Your task to perform on an android device: open app "Messages" (install if not already installed) Image 0: 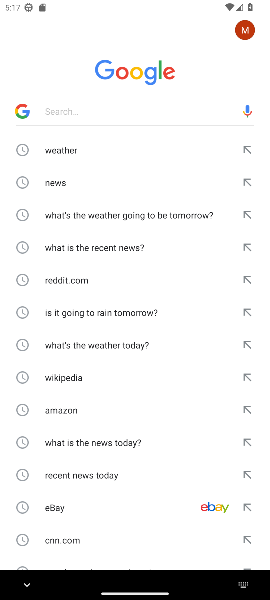
Step 0: press home button
Your task to perform on an android device: open app "Messages" (install if not already installed) Image 1: 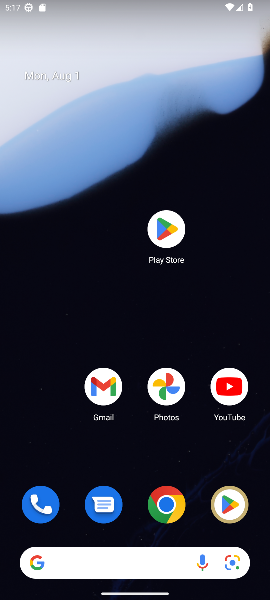
Step 1: click (168, 234)
Your task to perform on an android device: open app "Messages" (install if not already installed) Image 2: 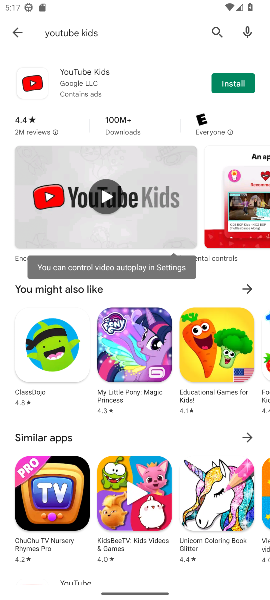
Step 2: click (218, 30)
Your task to perform on an android device: open app "Messages" (install if not already installed) Image 3: 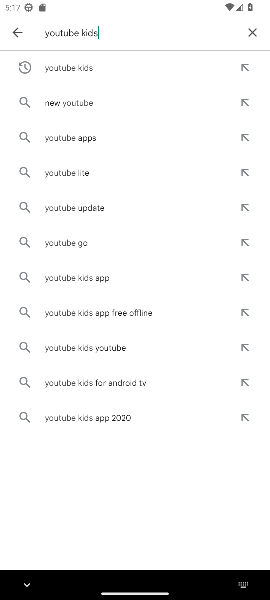
Step 3: click (249, 33)
Your task to perform on an android device: open app "Messages" (install if not already installed) Image 4: 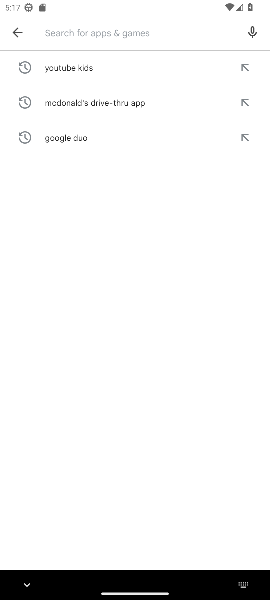
Step 4: type "Messages"
Your task to perform on an android device: open app "Messages" (install if not already installed) Image 5: 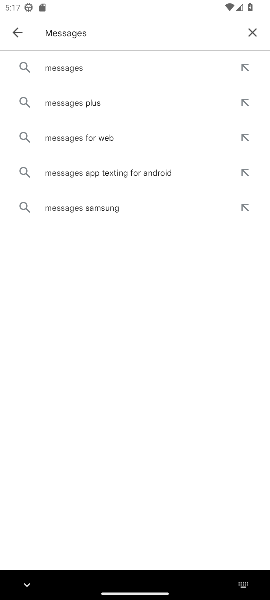
Step 5: click (64, 69)
Your task to perform on an android device: open app "Messages" (install if not already installed) Image 6: 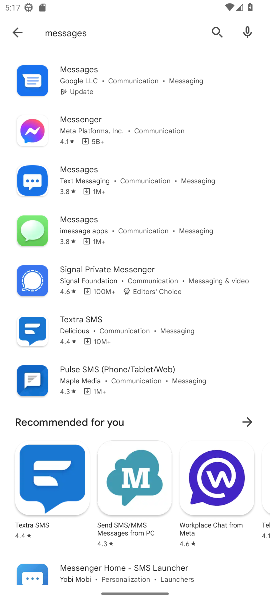
Step 6: click (96, 80)
Your task to perform on an android device: open app "Messages" (install if not already installed) Image 7: 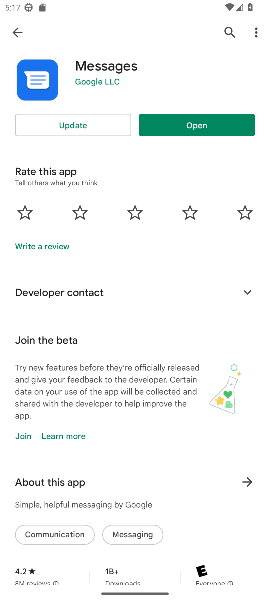
Step 7: click (185, 120)
Your task to perform on an android device: open app "Messages" (install if not already installed) Image 8: 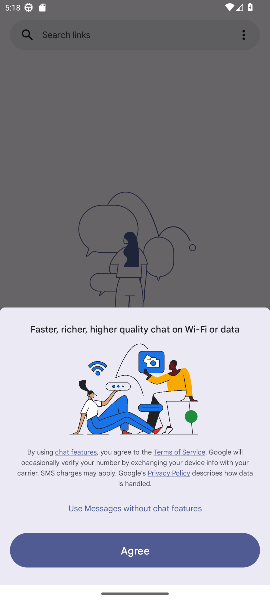
Step 8: task complete